Your task to perform on an android device: Open network settings Image 0: 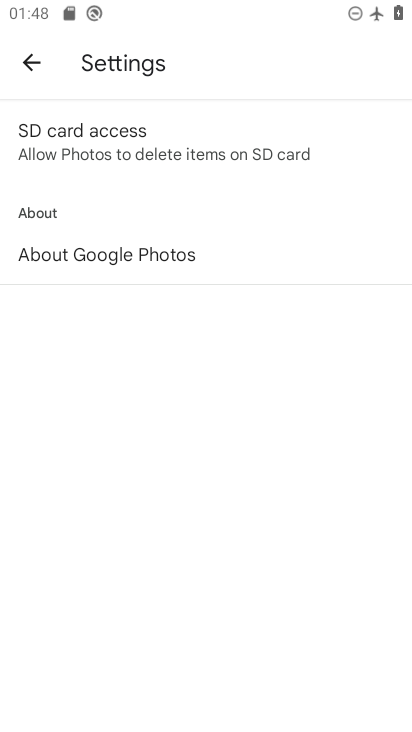
Step 0: press home button
Your task to perform on an android device: Open network settings Image 1: 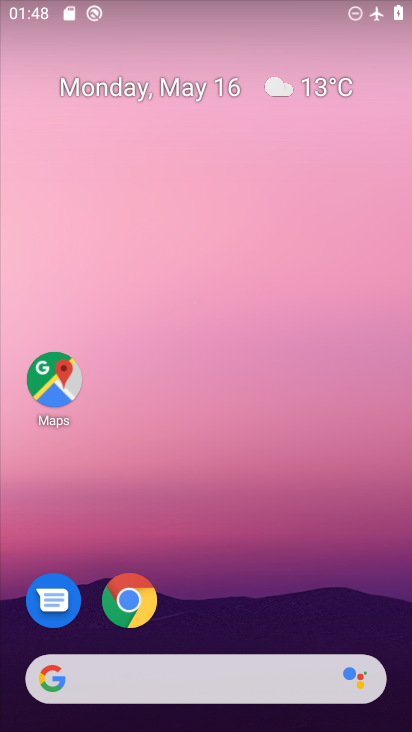
Step 1: drag from (221, 643) to (204, 65)
Your task to perform on an android device: Open network settings Image 2: 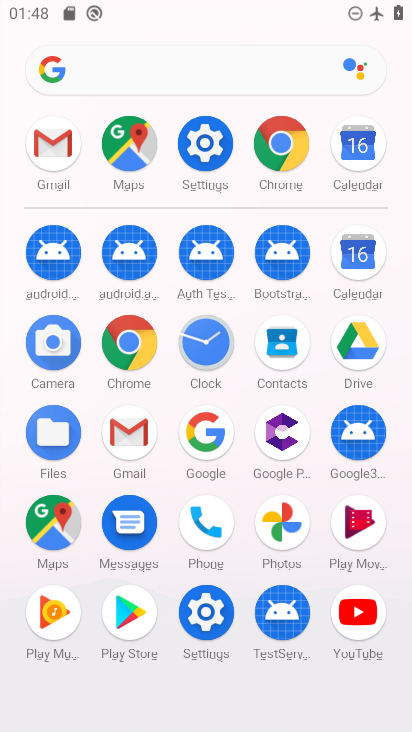
Step 2: click (205, 141)
Your task to perform on an android device: Open network settings Image 3: 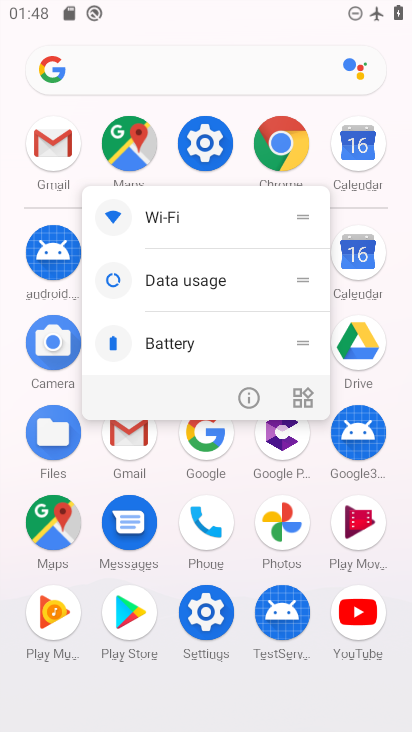
Step 3: click (210, 143)
Your task to perform on an android device: Open network settings Image 4: 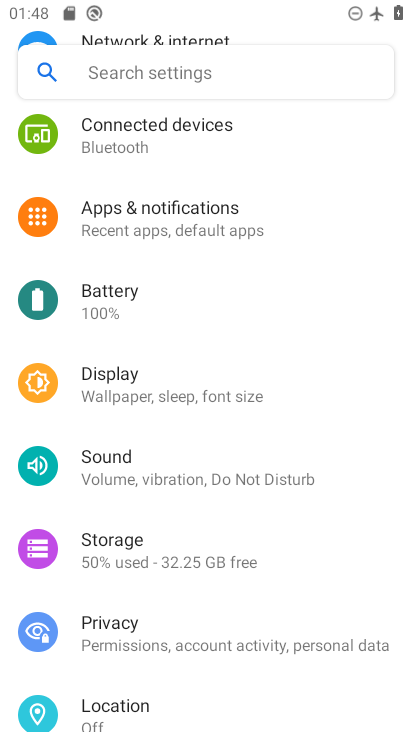
Step 4: drag from (204, 147) to (207, 662)
Your task to perform on an android device: Open network settings Image 5: 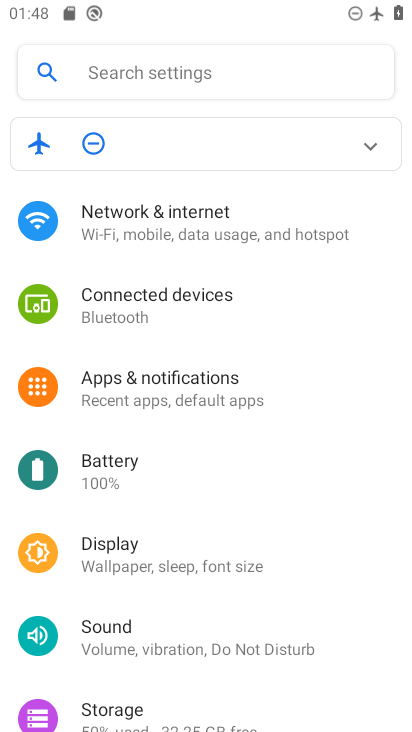
Step 5: click (244, 212)
Your task to perform on an android device: Open network settings Image 6: 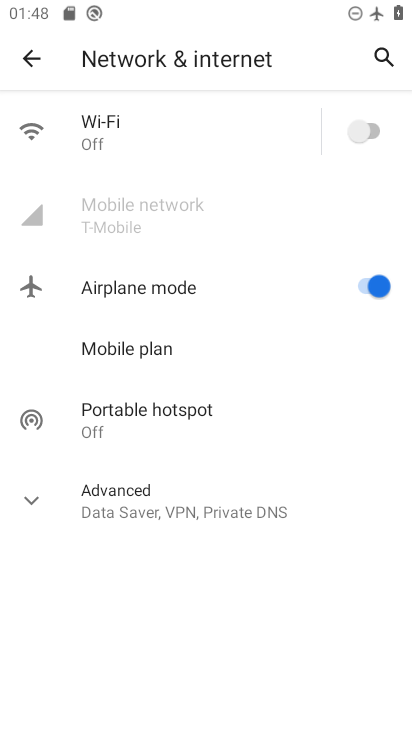
Step 6: click (37, 495)
Your task to perform on an android device: Open network settings Image 7: 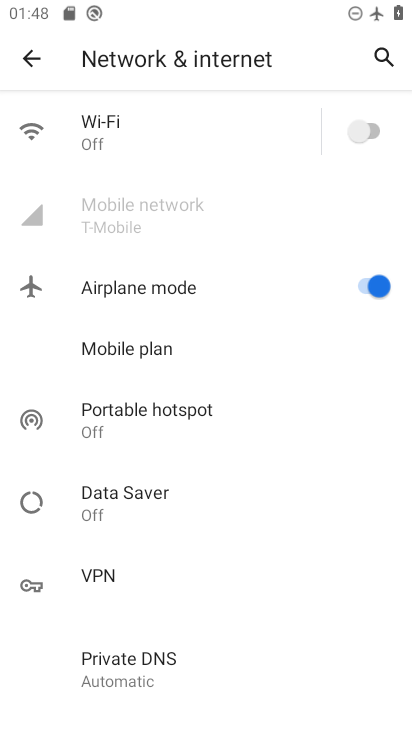
Step 7: task complete